Your task to perform on an android device: check storage Image 0: 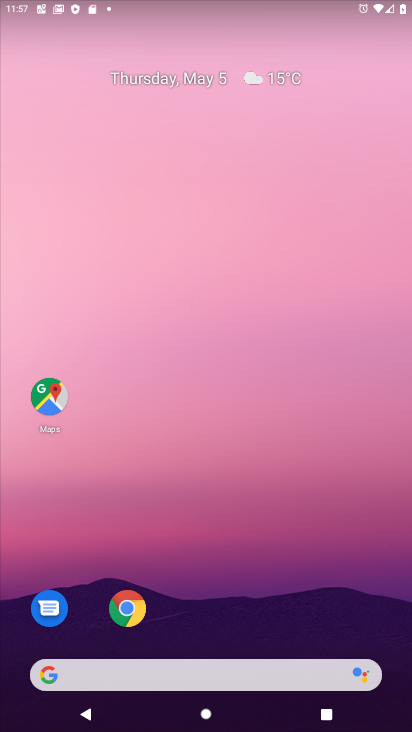
Step 0: drag from (273, 565) to (252, 189)
Your task to perform on an android device: check storage Image 1: 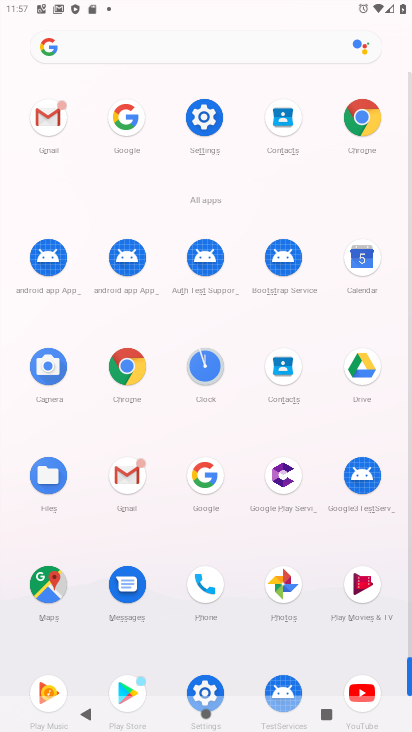
Step 1: click (209, 112)
Your task to perform on an android device: check storage Image 2: 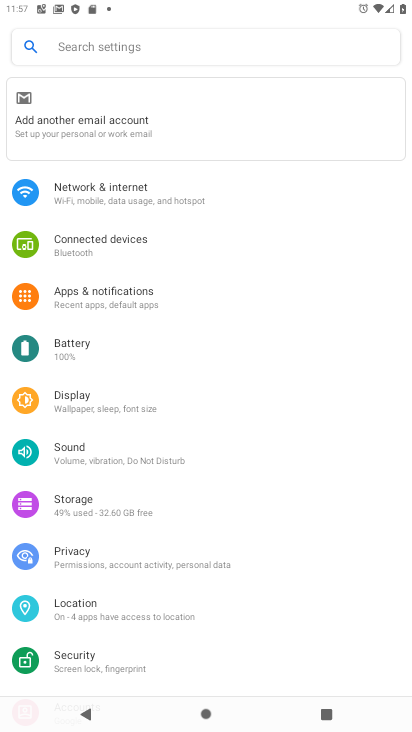
Step 2: click (81, 501)
Your task to perform on an android device: check storage Image 3: 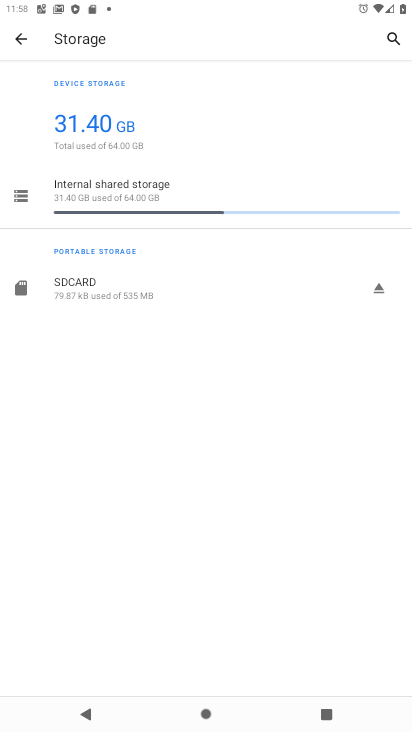
Step 3: task complete